Your task to perform on an android device: search for starred emails in the gmail app Image 0: 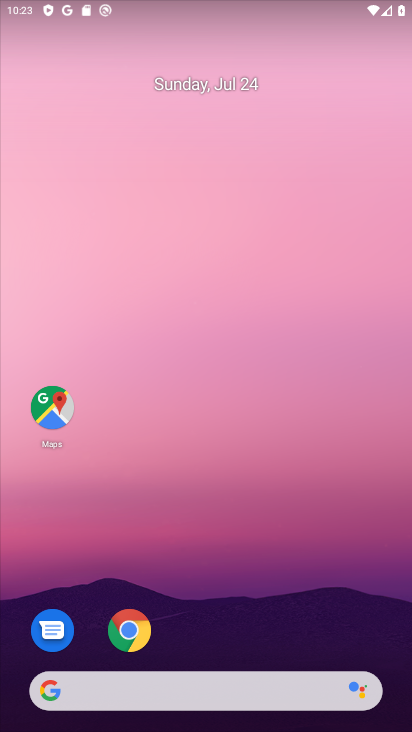
Step 0: press home button
Your task to perform on an android device: search for starred emails in the gmail app Image 1: 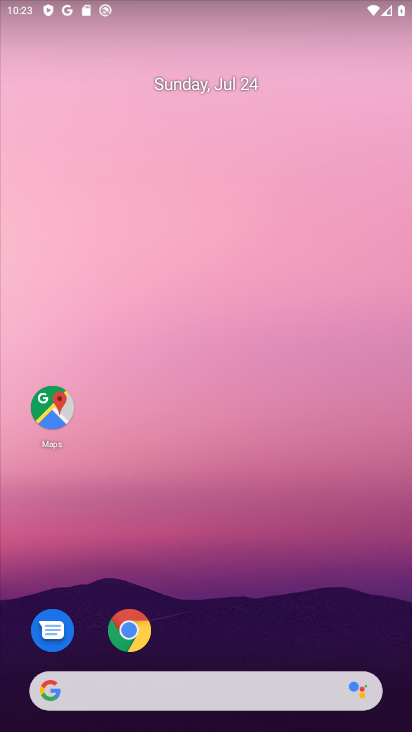
Step 1: drag from (260, 632) to (188, 71)
Your task to perform on an android device: search for starred emails in the gmail app Image 2: 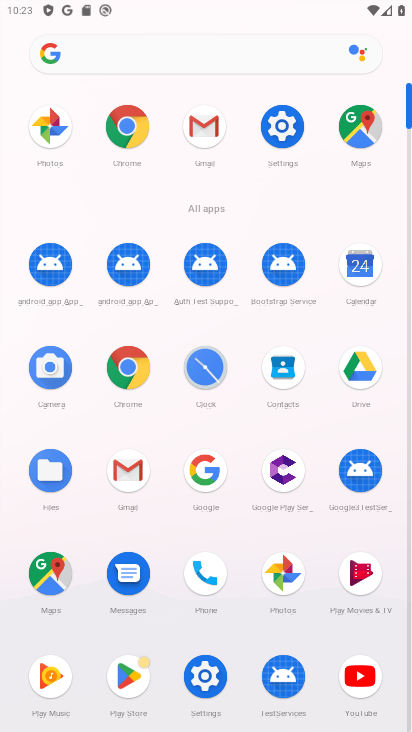
Step 2: click (207, 123)
Your task to perform on an android device: search for starred emails in the gmail app Image 3: 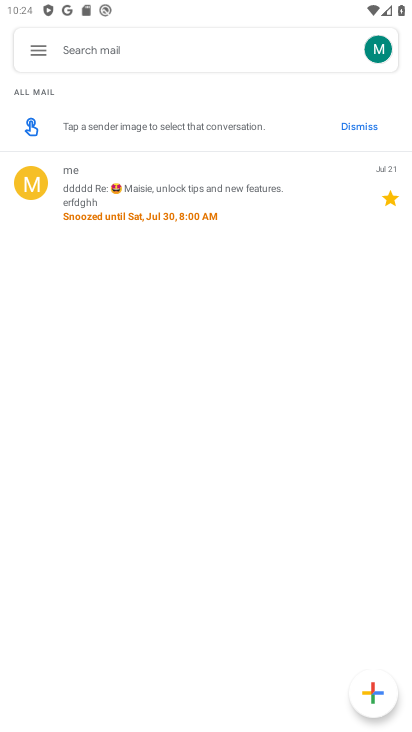
Step 3: click (29, 50)
Your task to perform on an android device: search for starred emails in the gmail app Image 4: 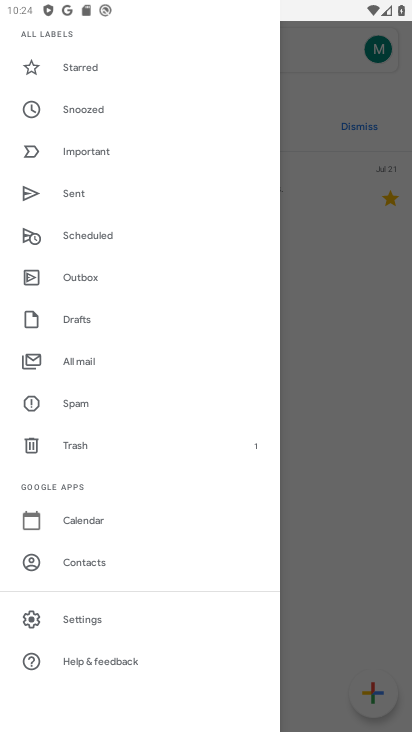
Step 4: click (108, 66)
Your task to perform on an android device: search for starred emails in the gmail app Image 5: 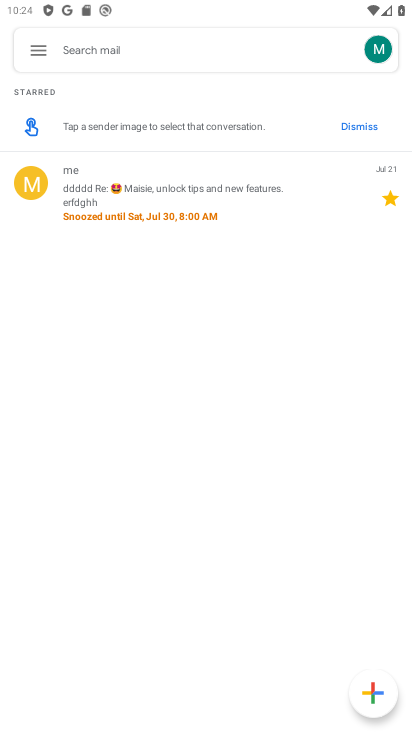
Step 5: task complete